Your task to perform on an android device: What is the speed of a cheetah? Image 0: 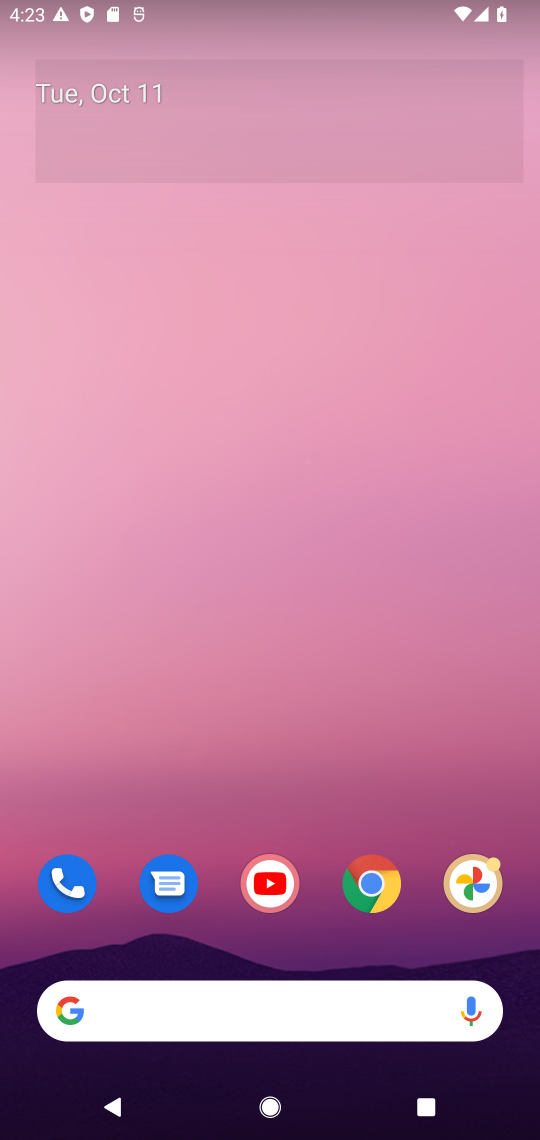
Step 0: drag from (331, 941) to (168, 61)
Your task to perform on an android device: What is the speed of a cheetah? Image 1: 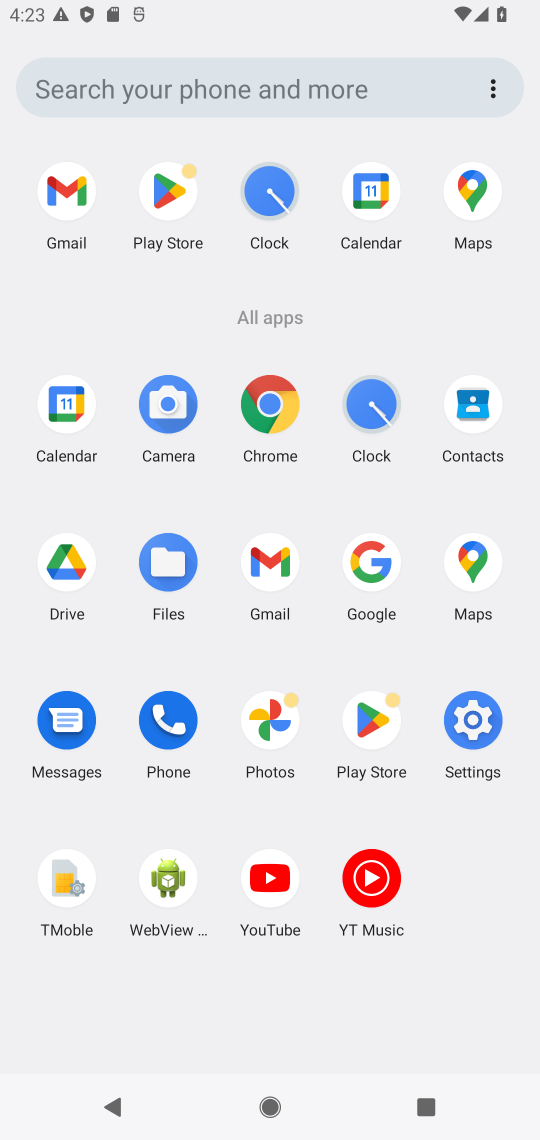
Step 1: click (273, 402)
Your task to perform on an android device: What is the speed of a cheetah? Image 2: 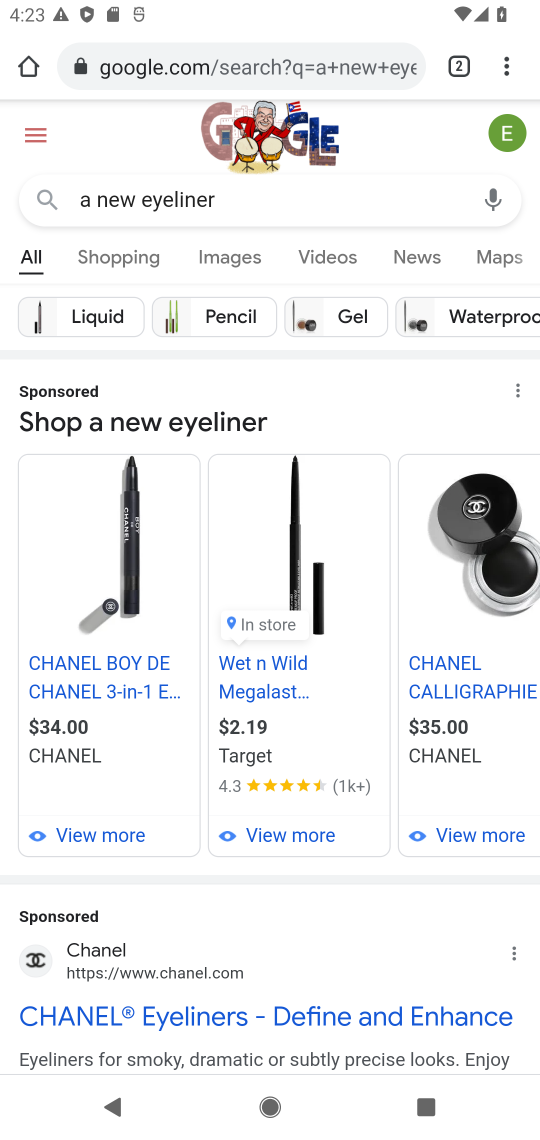
Step 2: click (289, 63)
Your task to perform on an android device: What is the speed of a cheetah? Image 3: 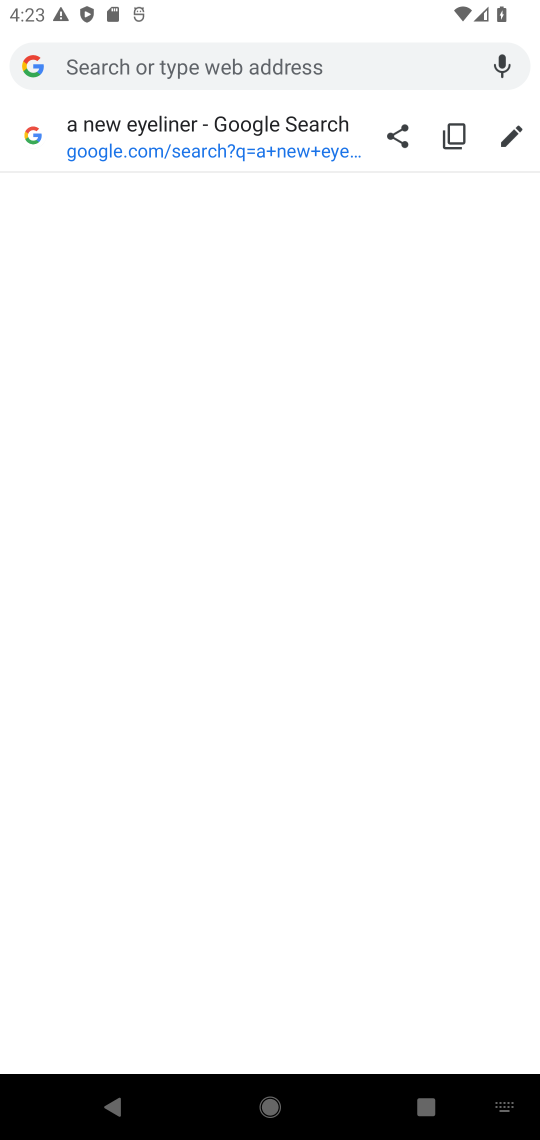
Step 3: type "What is the speed of a cheetah?"
Your task to perform on an android device: What is the speed of a cheetah? Image 4: 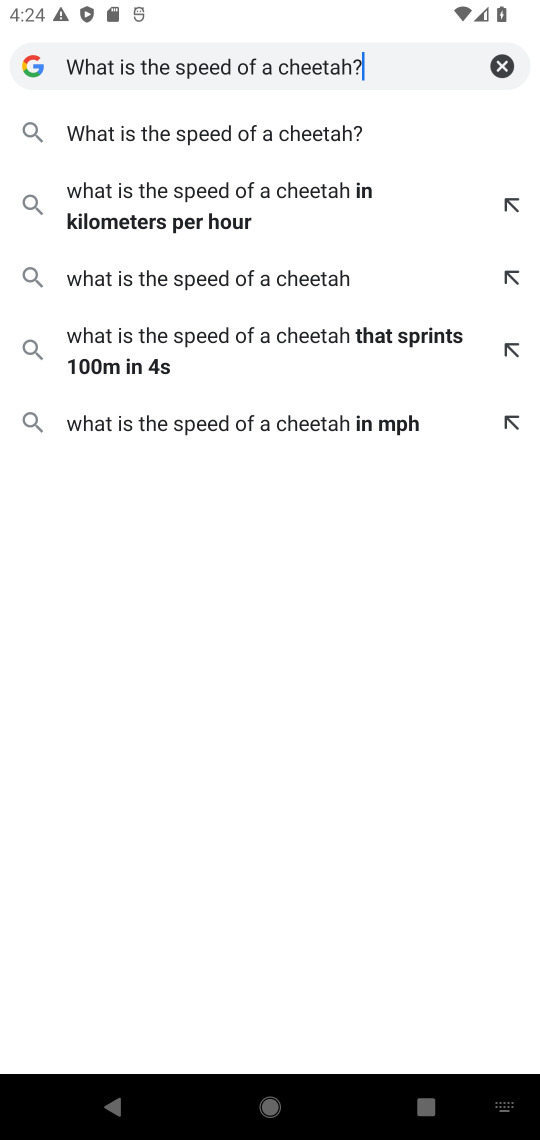
Step 4: press enter
Your task to perform on an android device: What is the speed of a cheetah? Image 5: 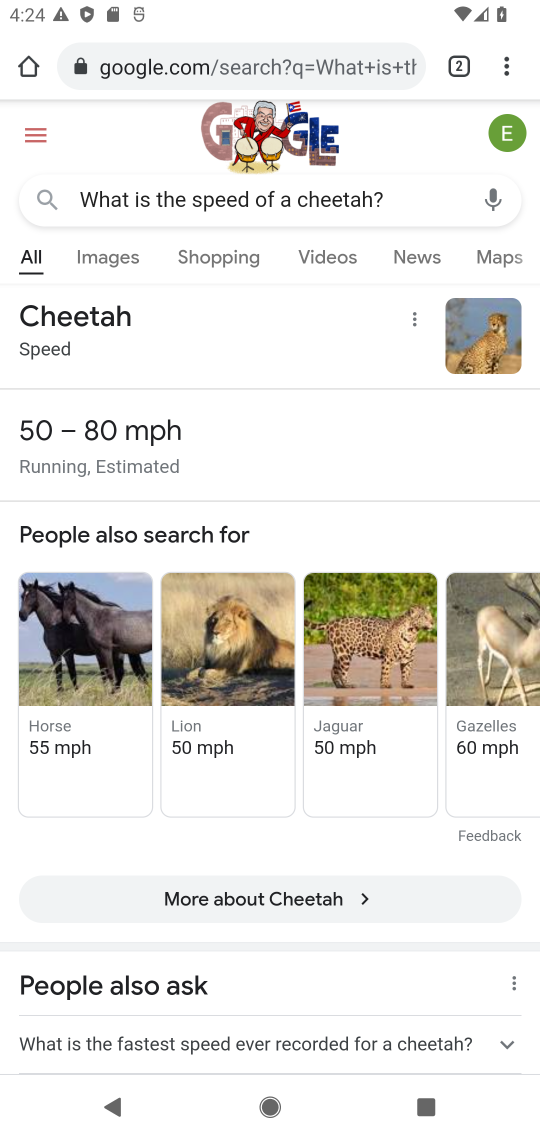
Step 5: task complete